Your task to perform on an android device: Go to network settings Image 0: 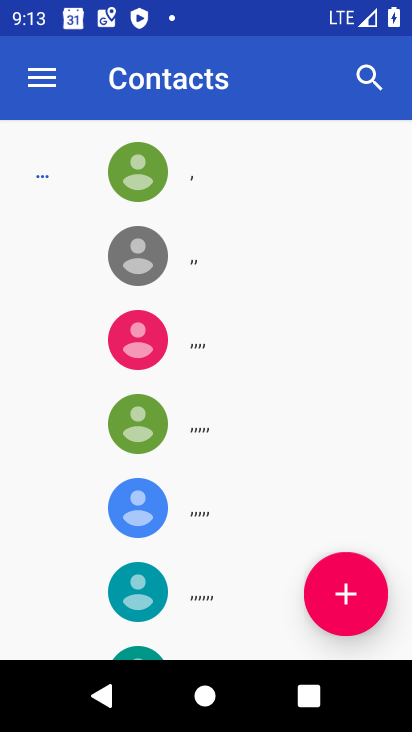
Step 0: press home button
Your task to perform on an android device: Go to network settings Image 1: 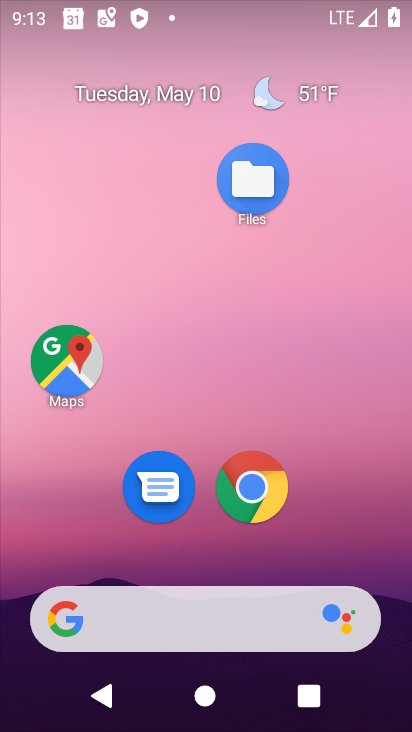
Step 1: drag from (197, 547) to (229, 30)
Your task to perform on an android device: Go to network settings Image 2: 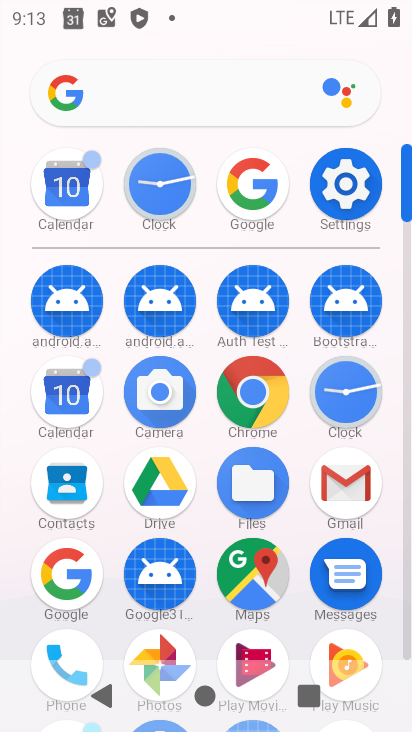
Step 2: click (343, 183)
Your task to perform on an android device: Go to network settings Image 3: 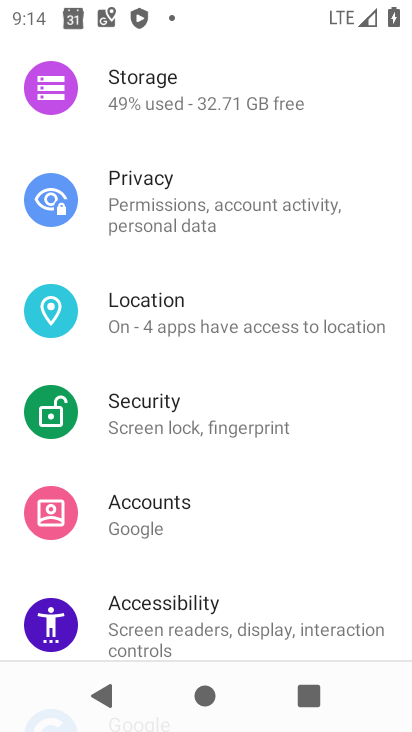
Step 3: drag from (185, 151) to (235, 603)
Your task to perform on an android device: Go to network settings Image 4: 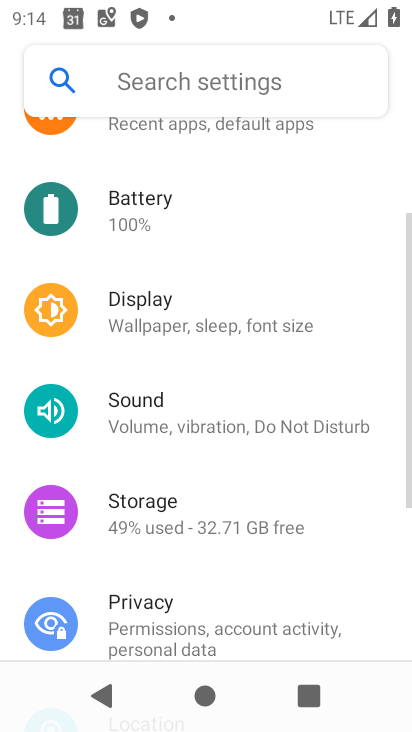
Step 4: drag from (212, 163) to (246, 687)
Your task to perform on an android device: Go to network settings Image 5: 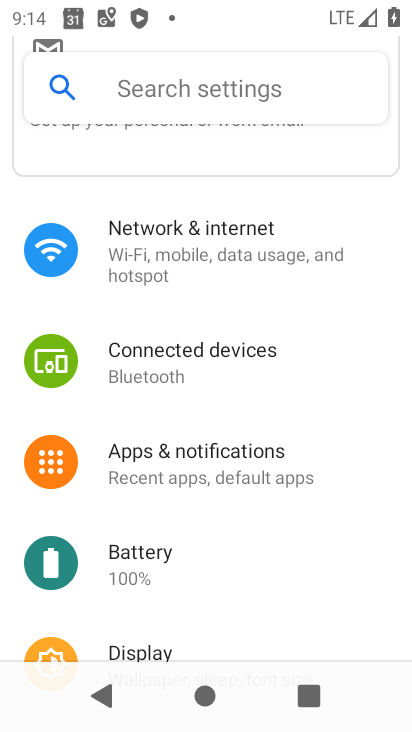
Step 5: click (182, 245)
Your task to perform on an android device: Go to network settings Image 6: 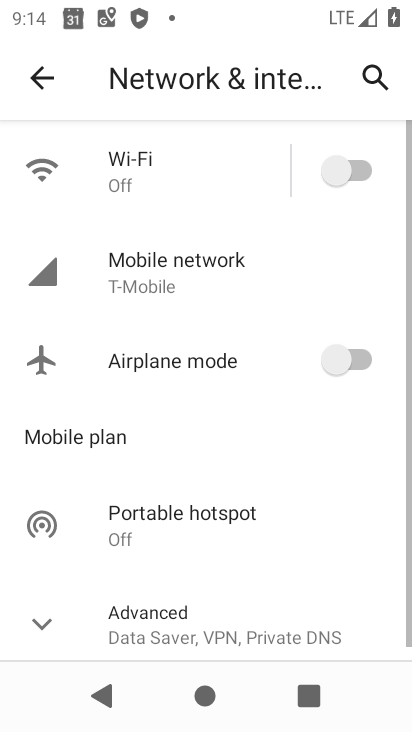
Step 6: click (178, 261)
Your task to perform on an android device: Go to network settings Image 7: 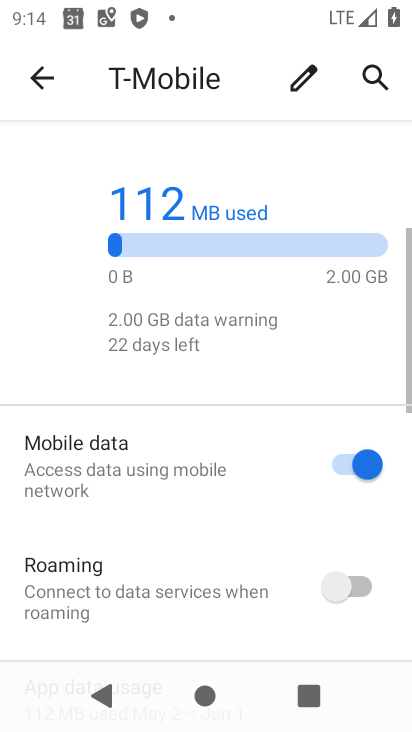
Step 7: task complete